Your task to perform on an android device: Where can I buy a nice beach bag? Image 0: 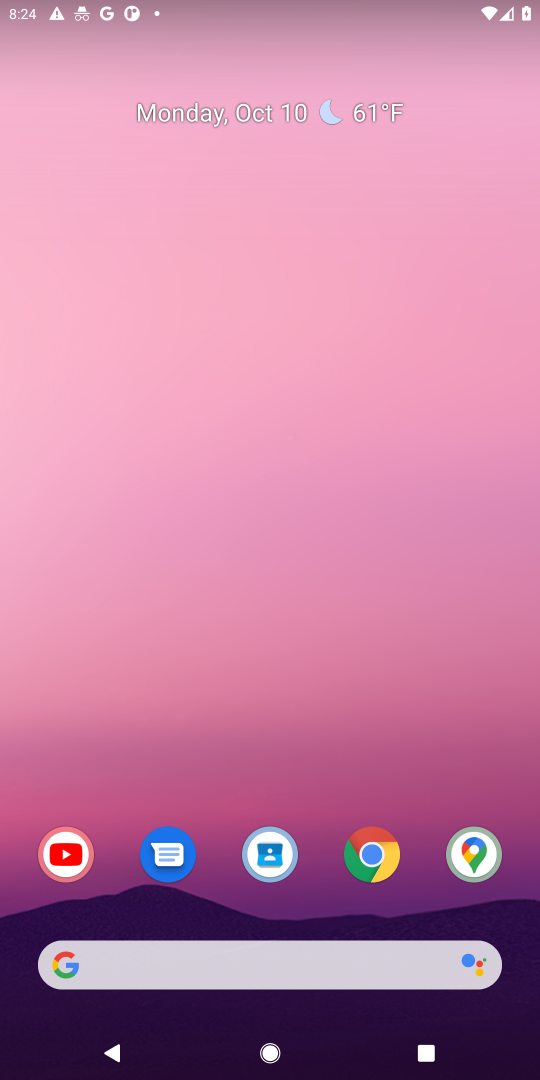
Step 0: click (378, 847)
Your task to perform on an android device: Where can I buy a nice beach bag? Image 1: 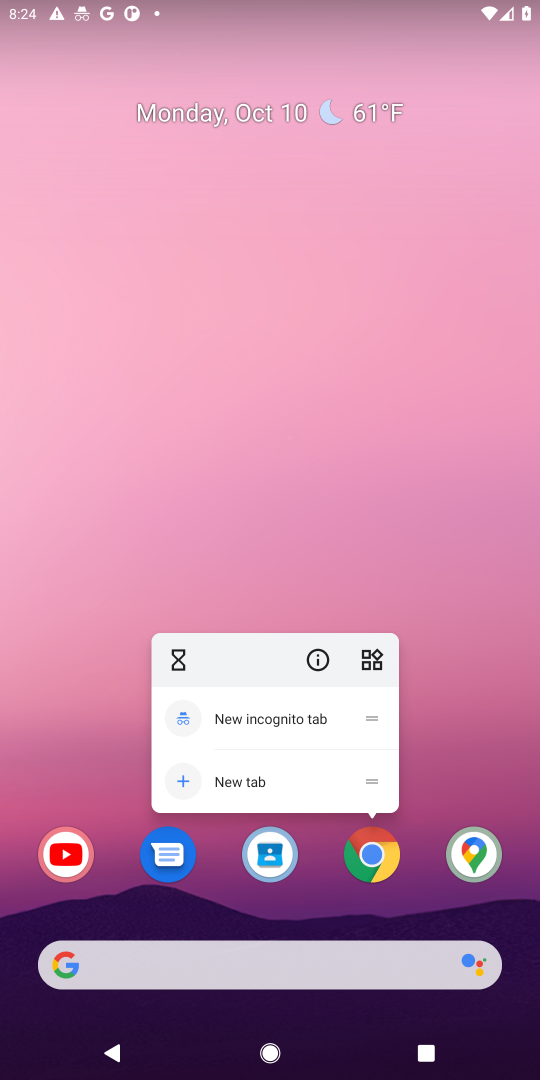
Step 1: click (378, 848)
Your task to perform on an android device: Where can I buy a nice beach bag? Image 2: 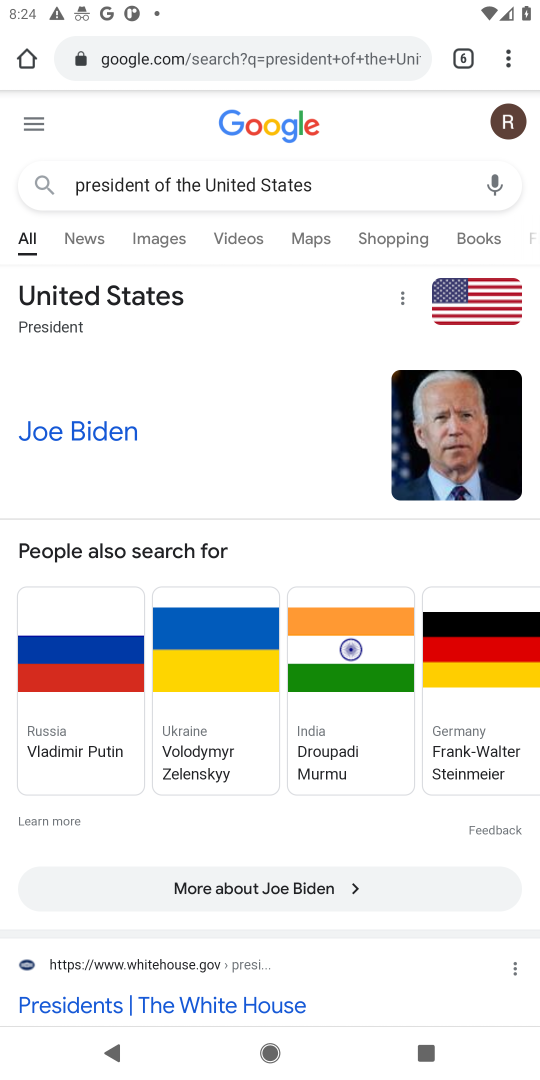
Step 2: click (196, 69)
Your task to perform on an android device: Where can I buy a nice beach bag? Image 3: 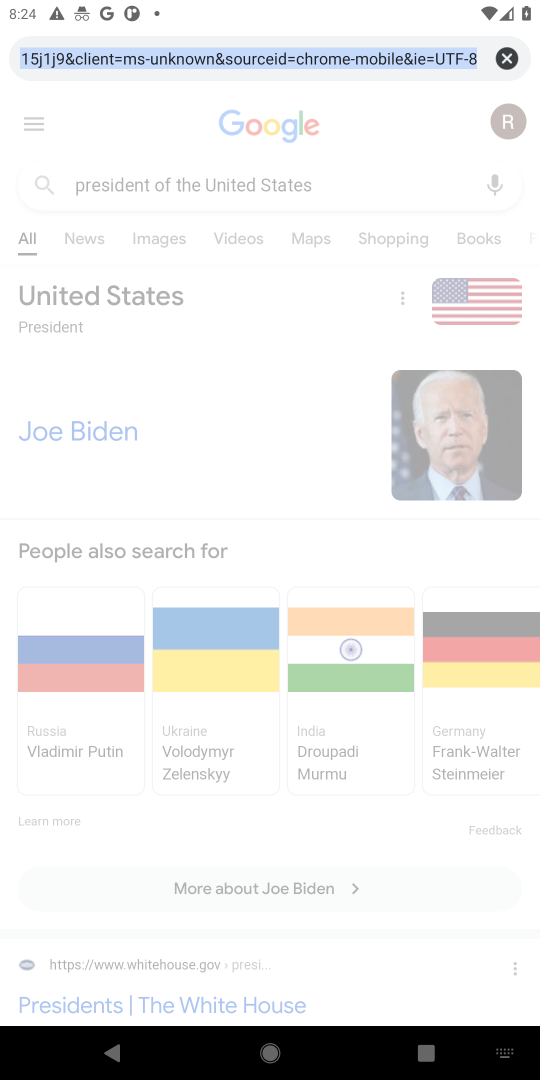
Step 3: click (505, 57)
Your task to perform on an android device: Where can I buy a nice beach bag? Image 4: 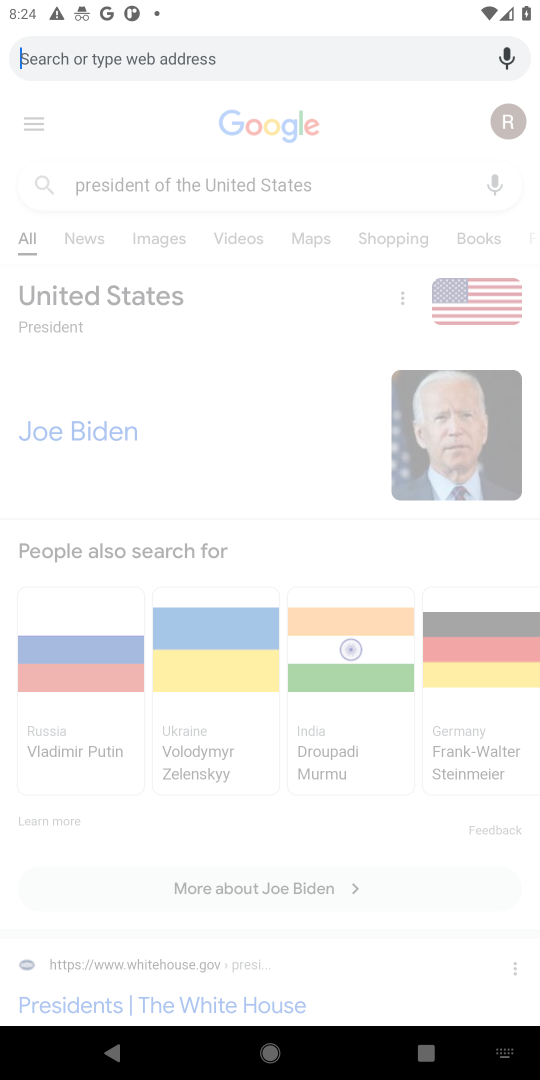
Step 4: type "Where can I buy a nice beach bag"
Your task to perform on an android device: Where can I buy a nice beach bag? Image 5: 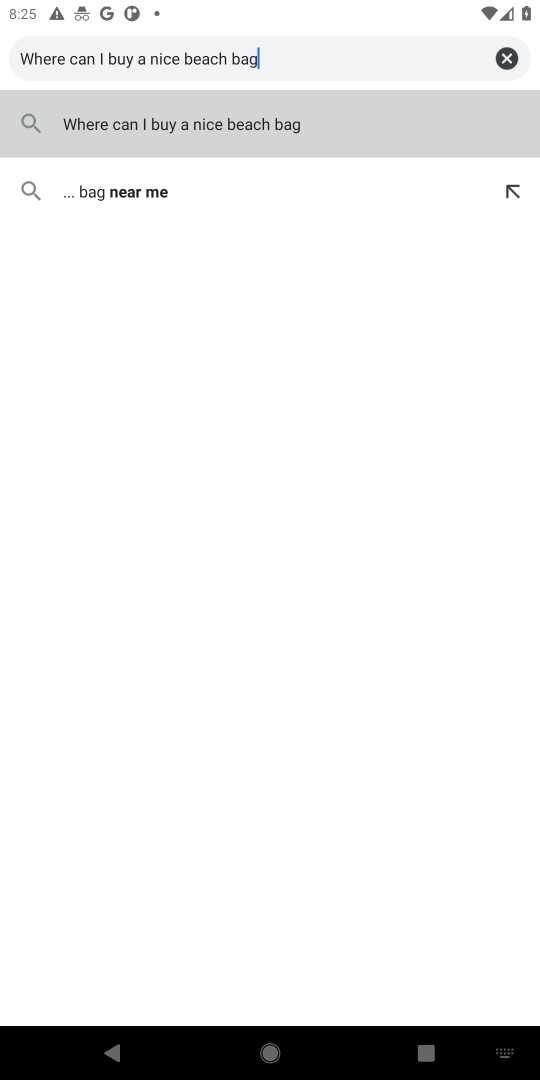
Step 5: click (244, 130)
Your task to perform on an android device: Where can I buy a nice beach bag? Image 6: 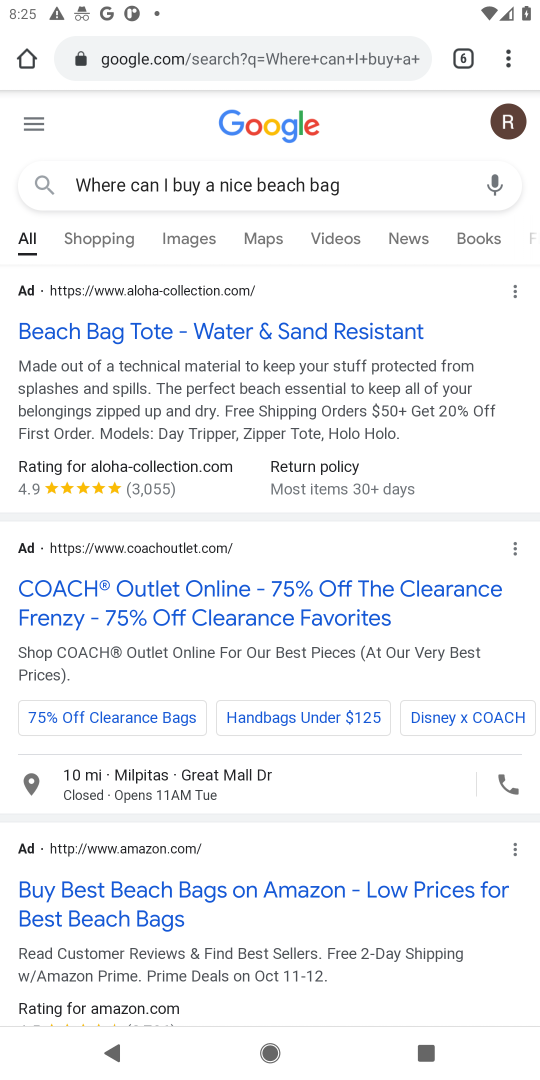
Step 6: click (155, 341)
Your task to perform on an android device: Where can I buy a nice beach bag? Image 7: 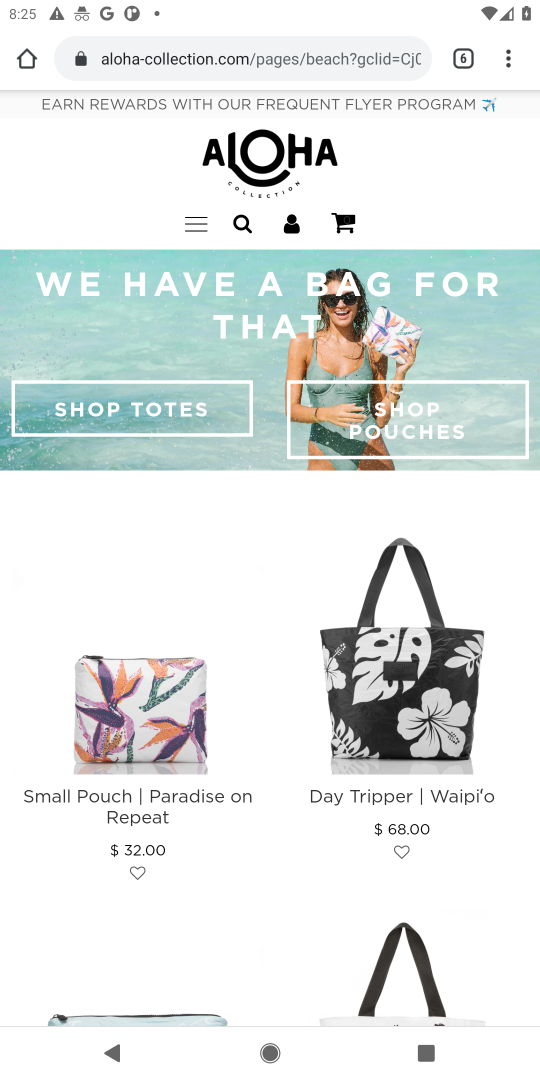
Step 7: task complete